Your task to perform on an android device: Open calendar and show me the fourth week of next month Image 0: 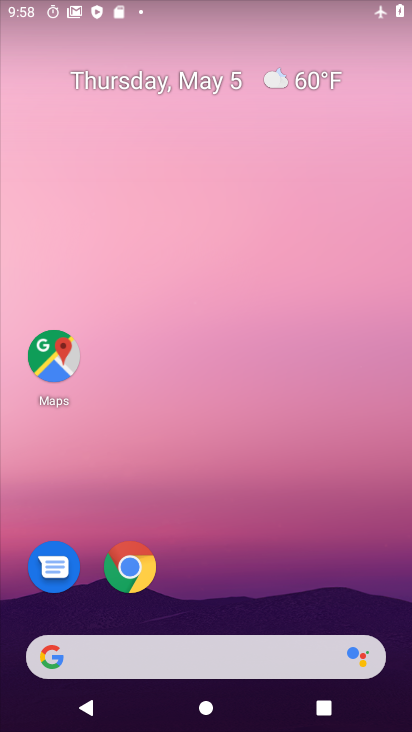
Step 0: drag from (268, 530) to (162, 43)
Your task to perform on an android device: Open calendar and show me the fourth week of next month Image 1: 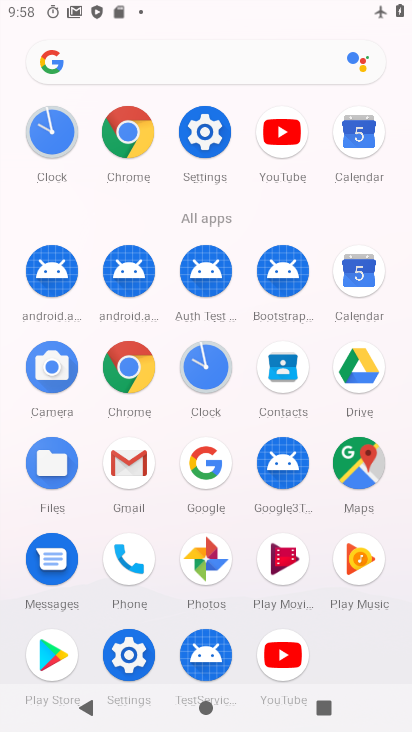
Step 1: click (343, 143)
Your task to perform on an android device: Open calendar and show me the fourth week of next month Image 2: 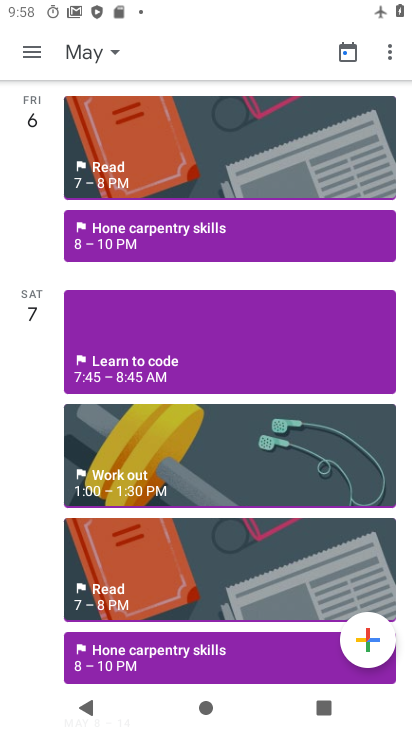
Step 2: click (74, 77)
Your task to perform on an android device: Open calendar and show me the fourth week of next month Image 3: 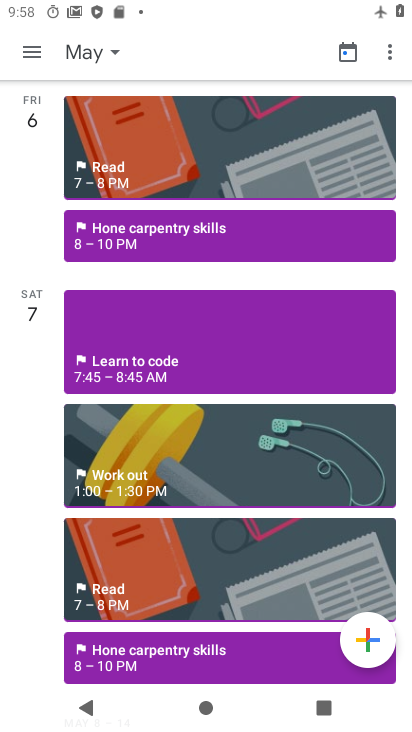
Step 3: click (77, 71)
Your task to perform on an android device: Open calendar and show me the fourth week of next month Image 4: 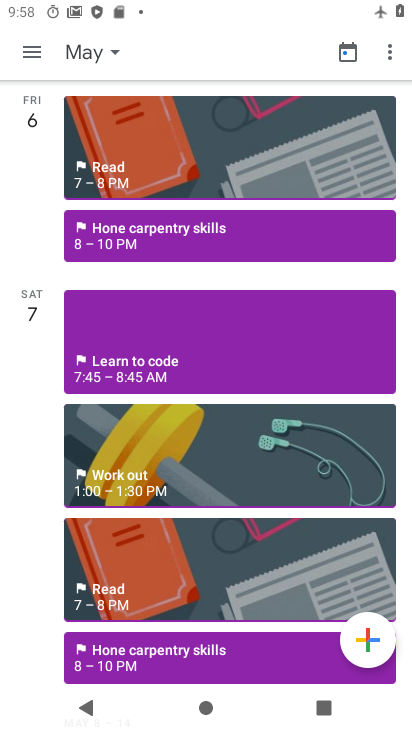
Step 4: click (81, 67)
Your task to perform on an android device: Open calendar and show me the fourth week of next month Image 5: 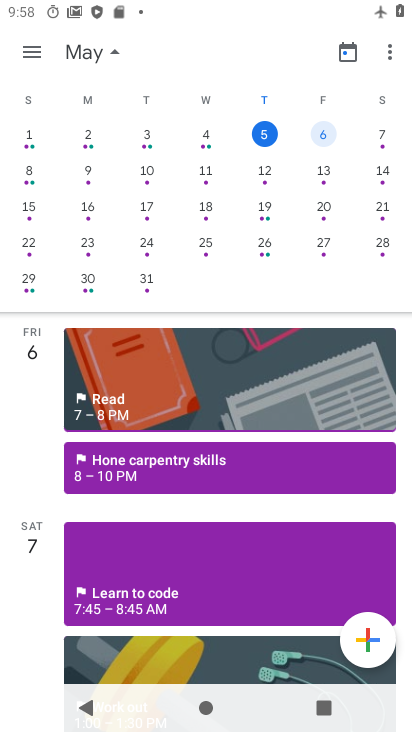
Step 5: drag from (316, 235) to (271, 6)
Your task to perform on an android device: Open calendar and show me the fourth week of next month Image 6: 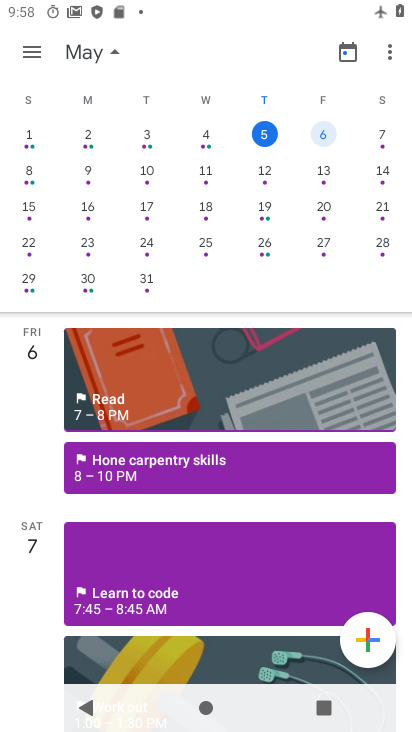
Step 6: click (380, 257)
Your task to perform on an android device: Open calendar and show me the fourth week of next month Image 7: 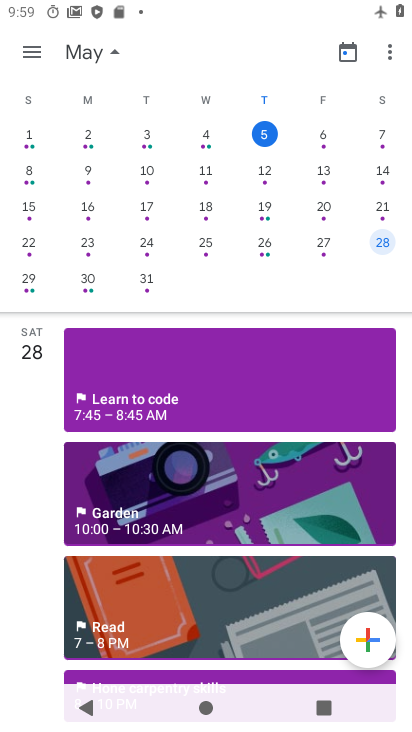
Step 7: task complete